Your task to perform on an android device: Empty the shopping cart on bestbuy. Add usb-a to usb-b to the cart on bestbuy, then select checkout. Image 0: 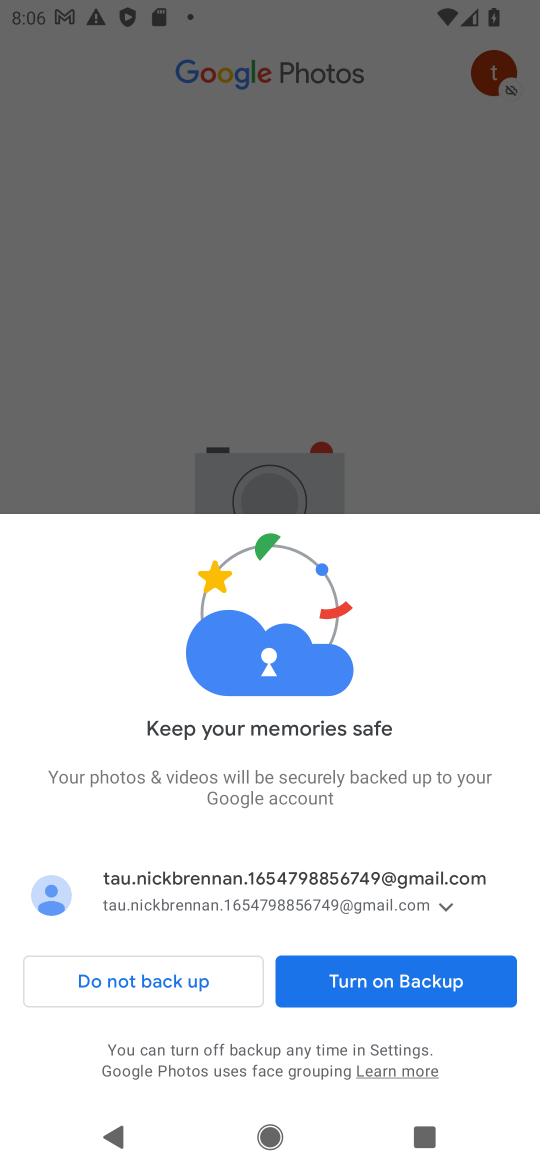
Step 0: press home button
Your task to perform on an android device: Empty the shopping cart on bestbuy. Add usb-a to usb-b to the cart on bestbuy, then select checkout. Image 1: 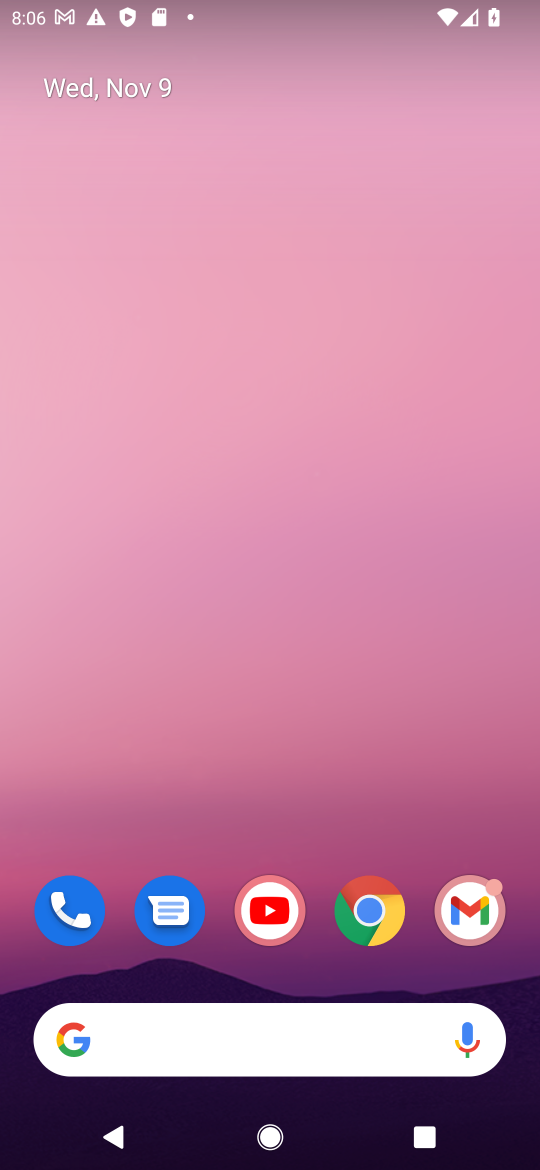
Step 1: click (374, 908)
Your task to perform on an android device: Empty the shopping cart on bestbuy. Add usb-a to usb-b to the cart on bestbuy, then select checkout. Image 2: 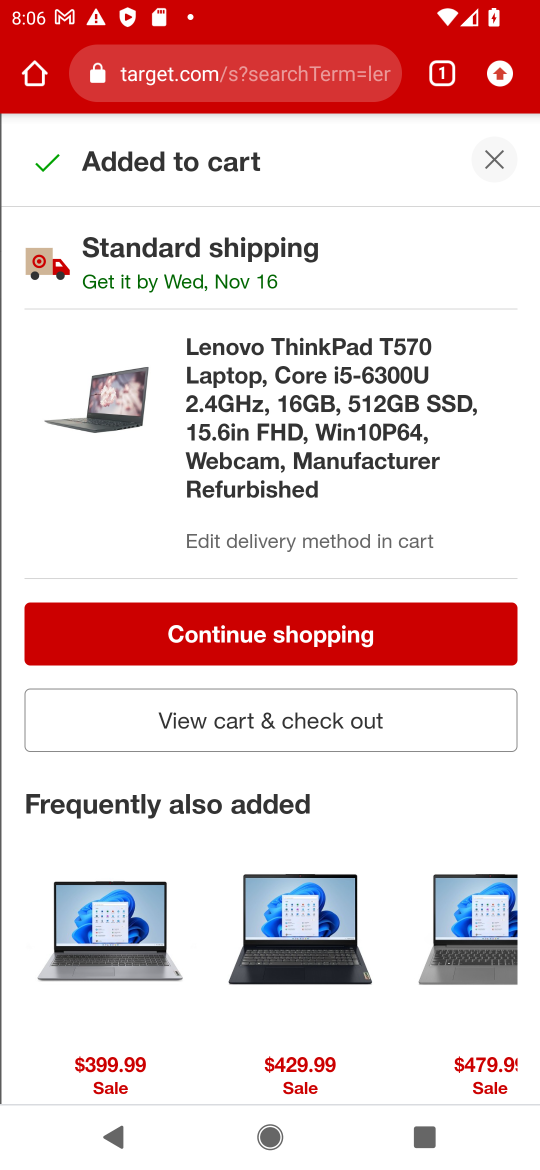
Step 2: click (296, 79)
Your task to perform on an android device: Empty the shopping cart on bestbuy. Add usb-a to usb-b to the cart on bestbuy, then select checkout. Image 3: 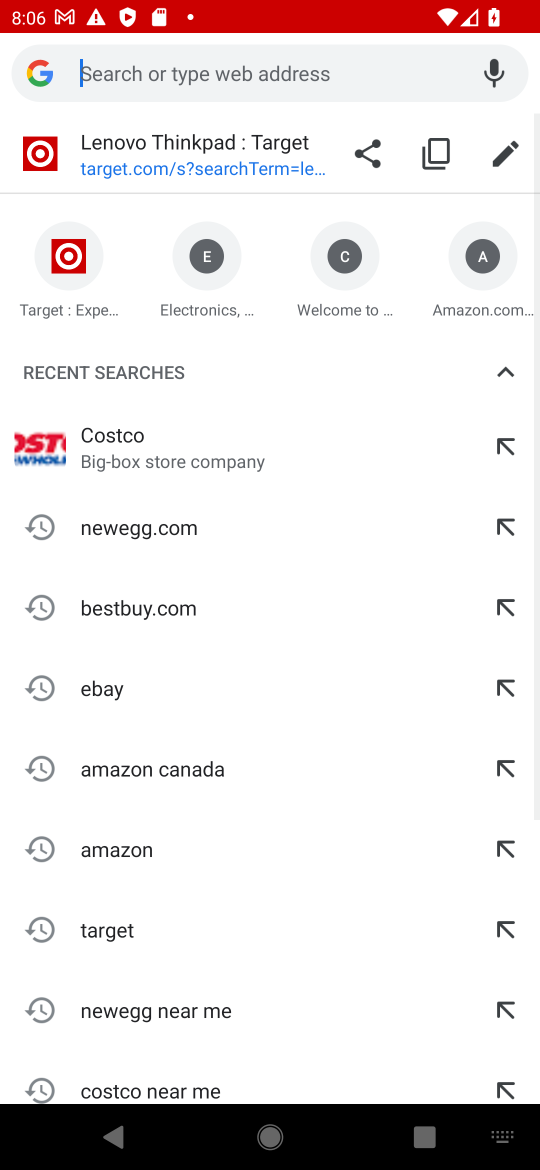
Step 3: click (129, 612)
Your task to perform on an android device: Empty the shopping cart on bestbuy. Add usb-a to usb-b to the cart on bestbuy, then select checkout. Image 4: 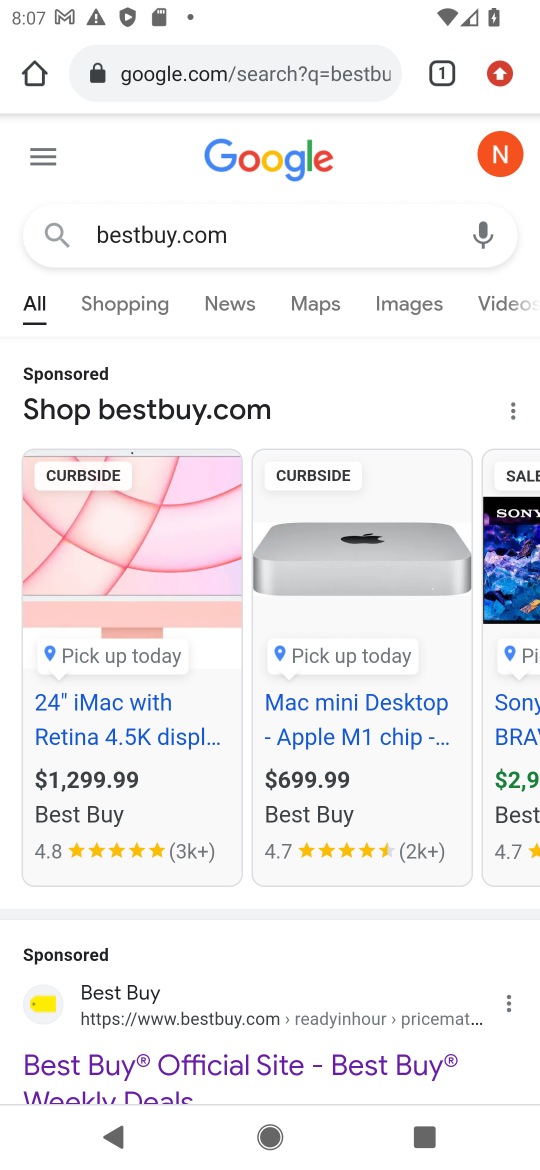
Step 4: drag from (174, 725) to (208, 450)
Your task to perform on an android device: Empty the shopping cart on bestbuy. Add usb-a to usb-b to the cart on bestbuy, then select checkout. Image 5: 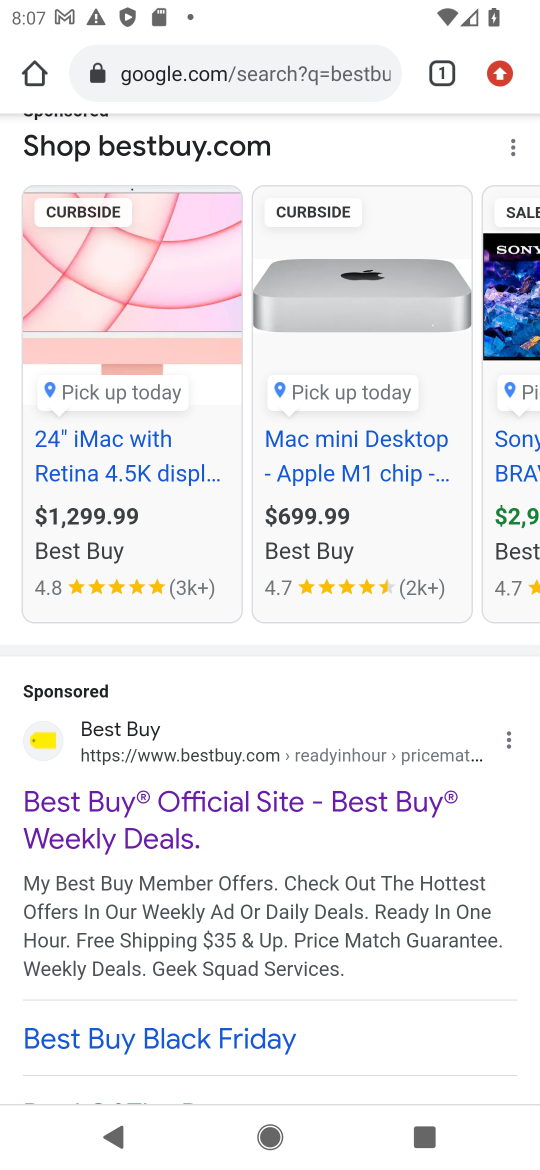
Step 5: drag from (200, 817) to (276, 330)
Your task to perform on an android device: Empty the shopping cart on bestbuy. Add usb-a to usb-b to the cart on bestbuy, then select checkout. Image 6: 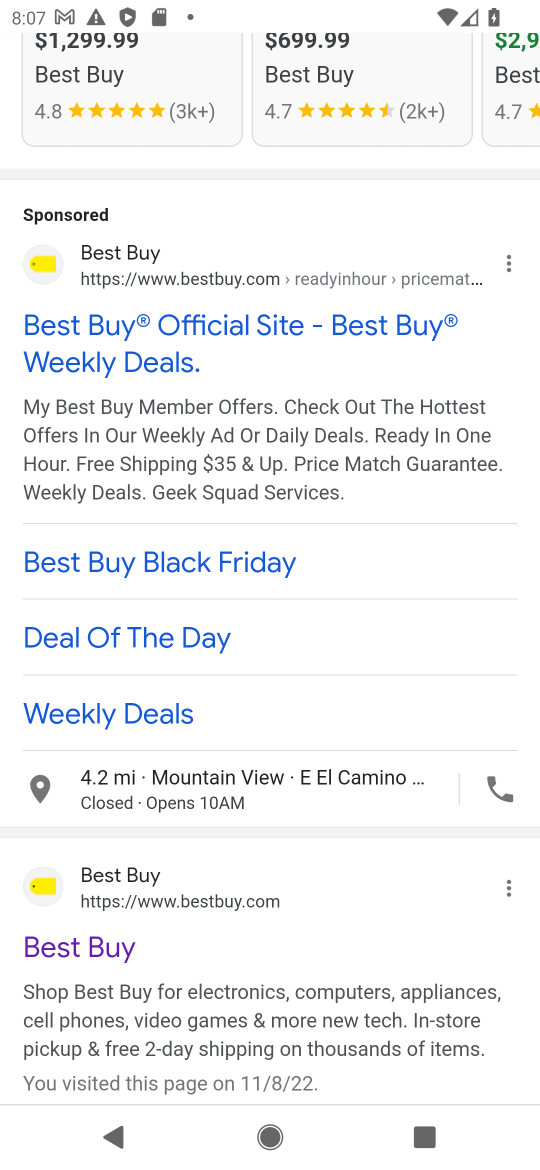
Step 6: click (104, 939)
Your task to perform on an android device: Empty the shopping cart on bestbuy. Add usb-a to usb-b to the cart on bestbuy, then select checkout. Image 7: 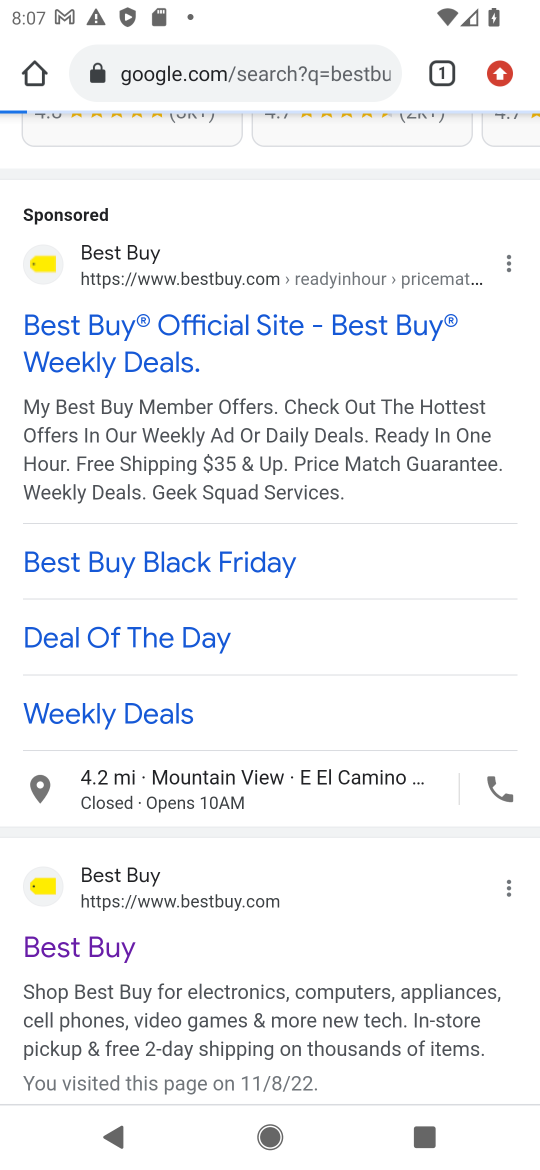
Step 7: click (108, 911)
Your task to perform on an android device: Empty the shopping cart on bestbuy. Add usb-a to usb-b to the cart on bestbuy, then select checkout. Image 8: 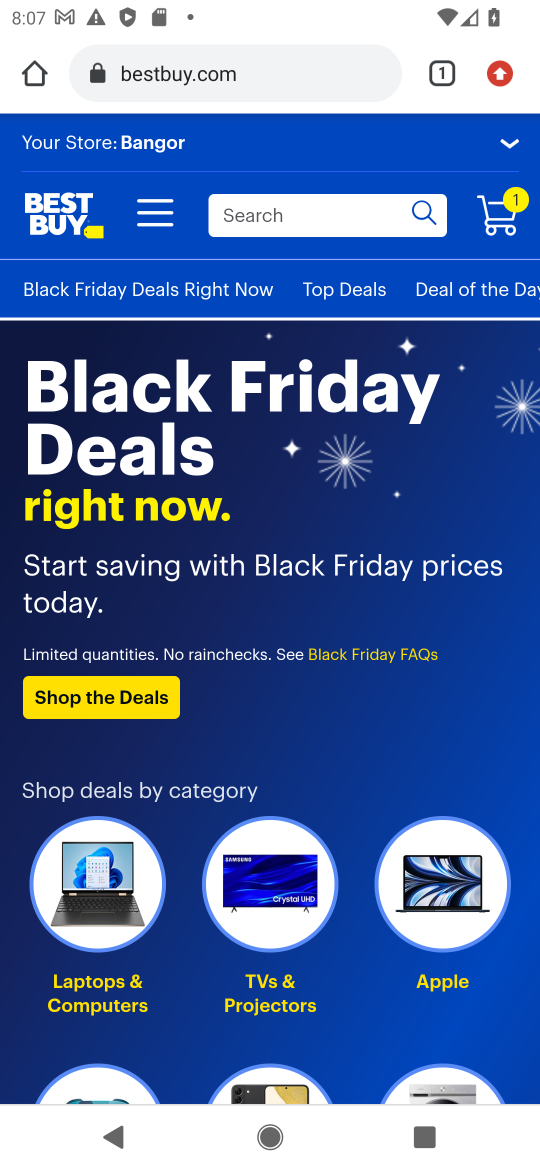
Step 8: click (501, 229)
Your task to perform on an android device: Empty the shopping cart on bestbuy. Add usb-a to usb-b to the cart on bestbuy, then select checkout. Image 9: 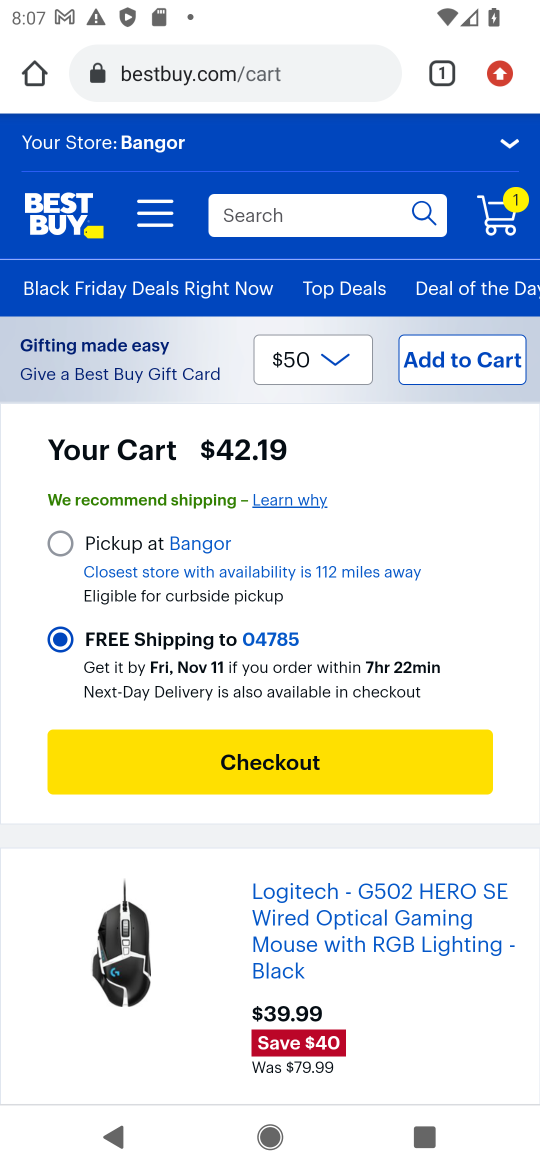
Step 9: drag from (318, 642) to (315, 279)
Your task to perform on an android device: Empty the shopping cart on bestbuy. Add usb-a to usb-b to the cart on bestbuy, then select checkout. Image 10: 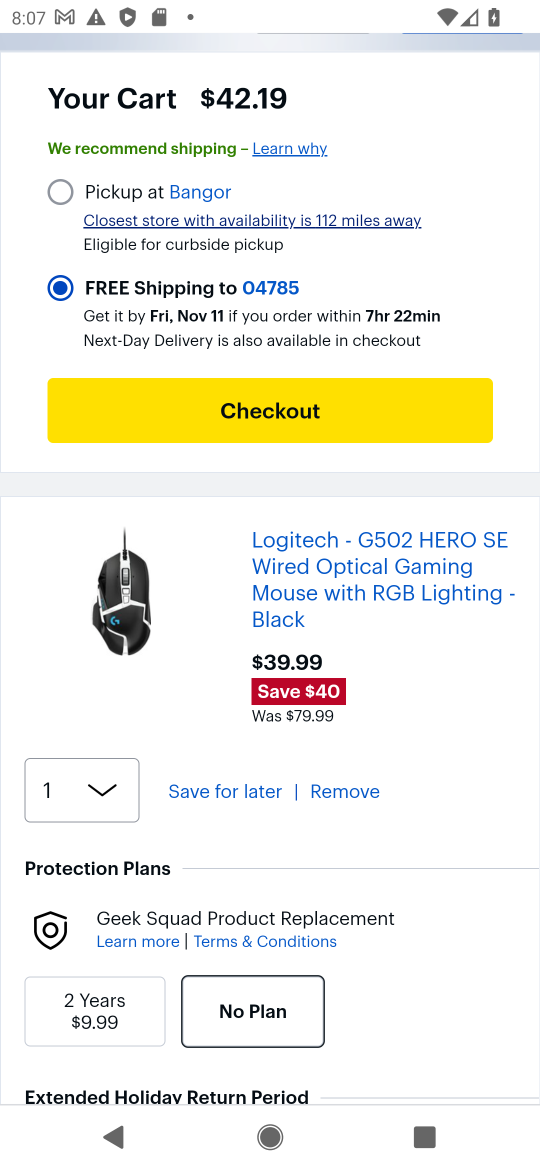
Step 10: click (330, 798)
Your task to perform on an android device: Empty the shopping cart on bestbuy. Add usb-a to usb-b to the cart on bestbuy, then select checkout. Image 11: 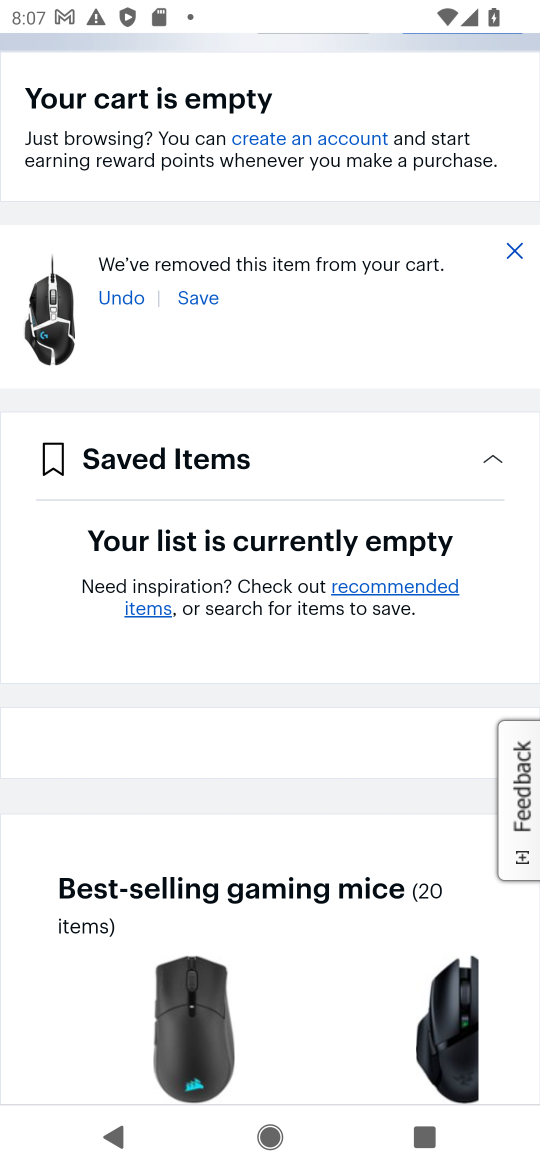
Step 11: drag from (304, 303) to (324, 858)
Your task to perform on an android device: Empty the shopping cart on bestbuy. Add usb-a to usb-b to the cart on bestbuy, then select checkout. Image 12: 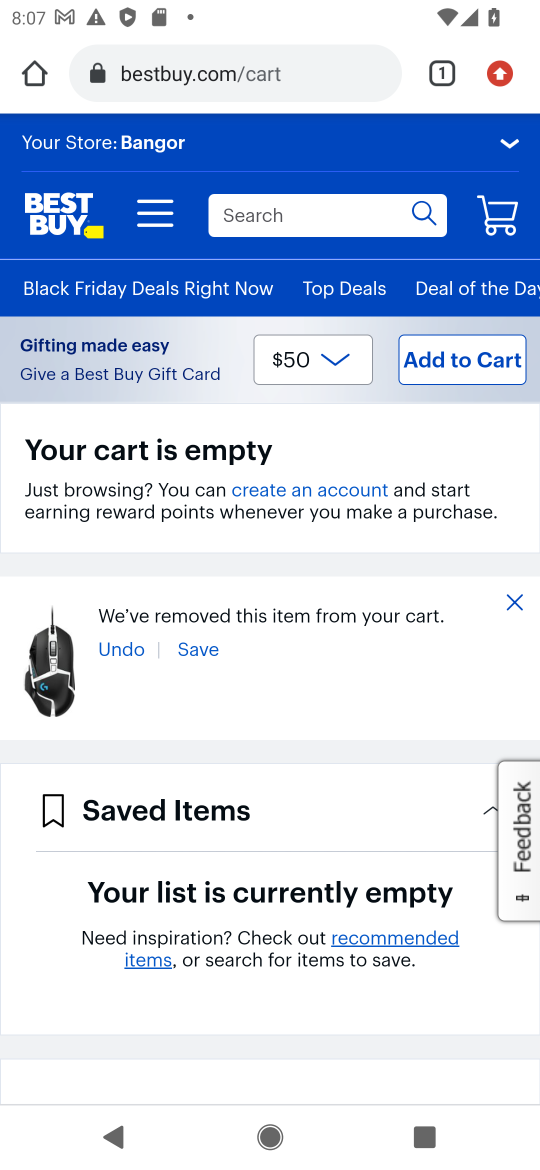
Step 12: click (288, 213)
Your task to perform on an android device: Empty the shopping cart on bestbuy. Add usb-a to usb-b to the cart on bestbuy, then select checkout. Image 13: 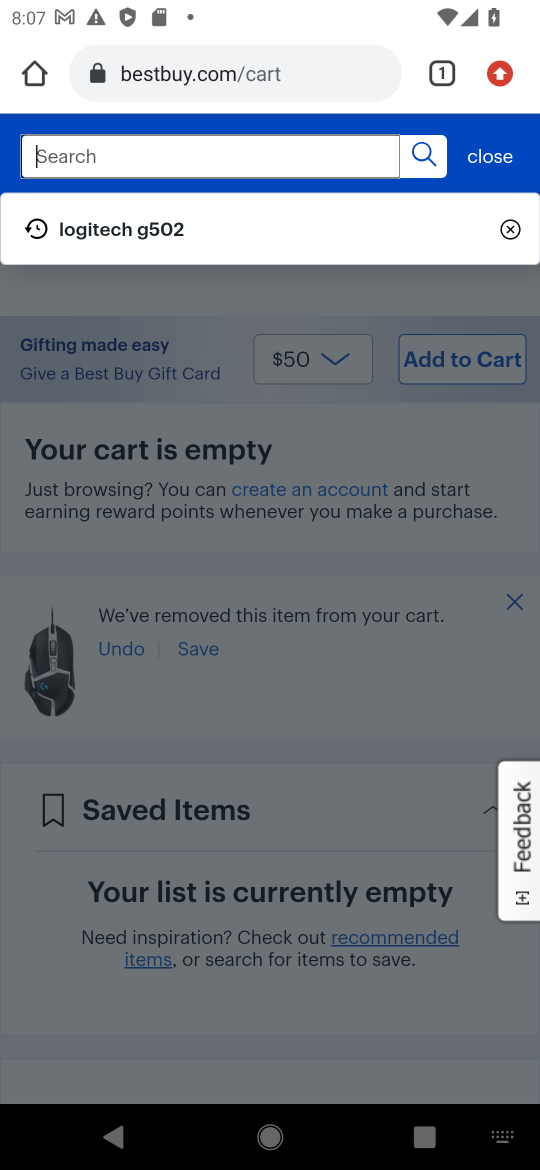
Step 13: type "usb-a to usb-b"
Your task to perform on an android device: Empty the shopping cart on bestbuy. Add usb-a to usb-b to the cart on bestbuy, then select checkout. Image 14: 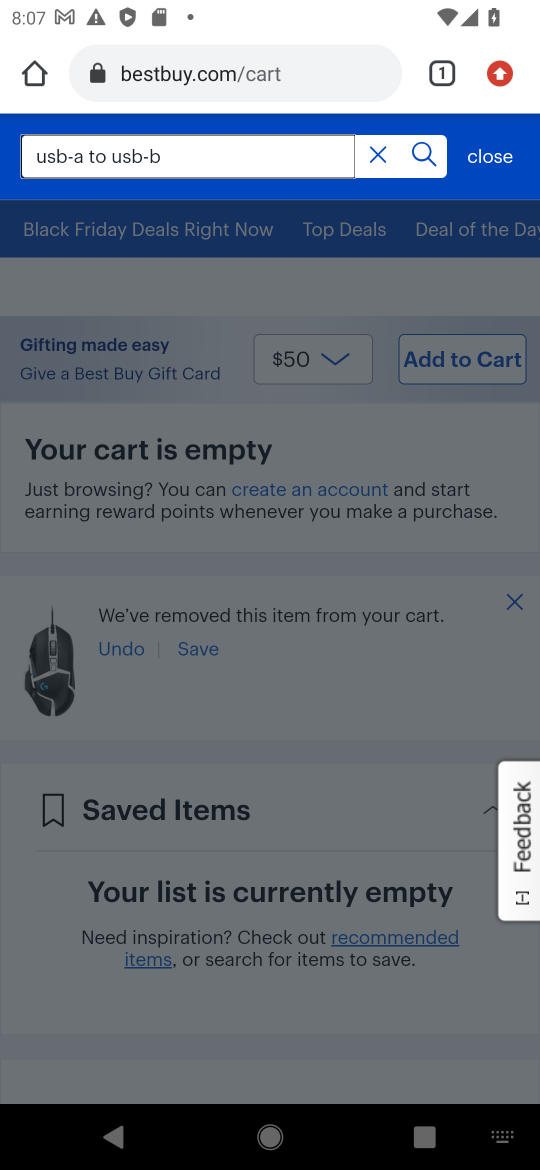
Step 14: click (434, 155)
Your task to perform on an android device: Empty the shopping cart on bestbuy. Add usb-a to usb-b to the cart on bestbuy, then select checkout. Image 15: 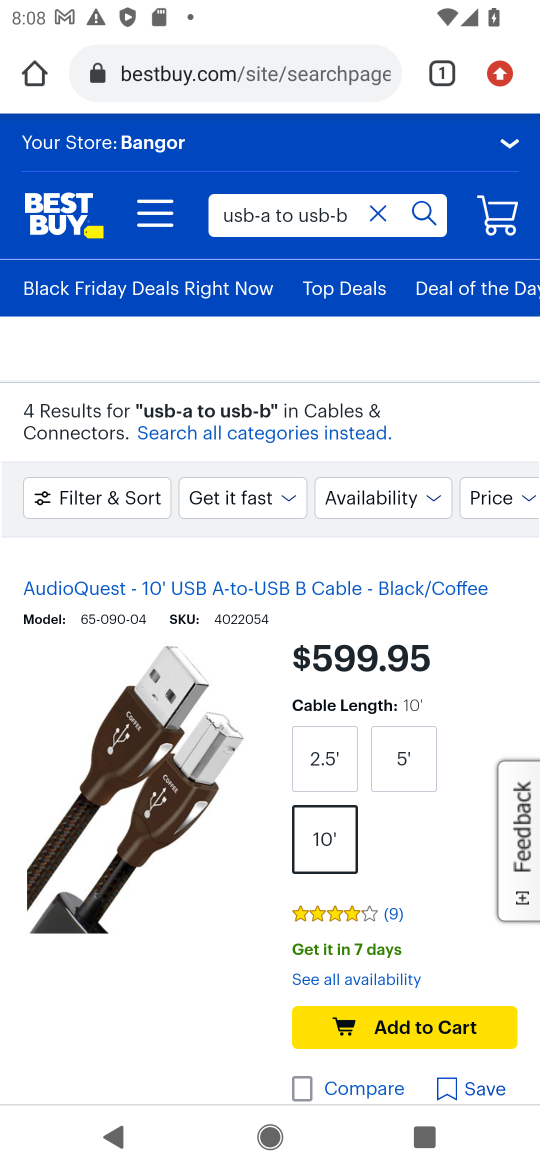
Step 15: click (384, 1023)
Your task to perform on an android device: Empty the shopping cart on bestbuy. Add usb-a to usb-b to the cart on bestbuy, then select checkout. Image 16: 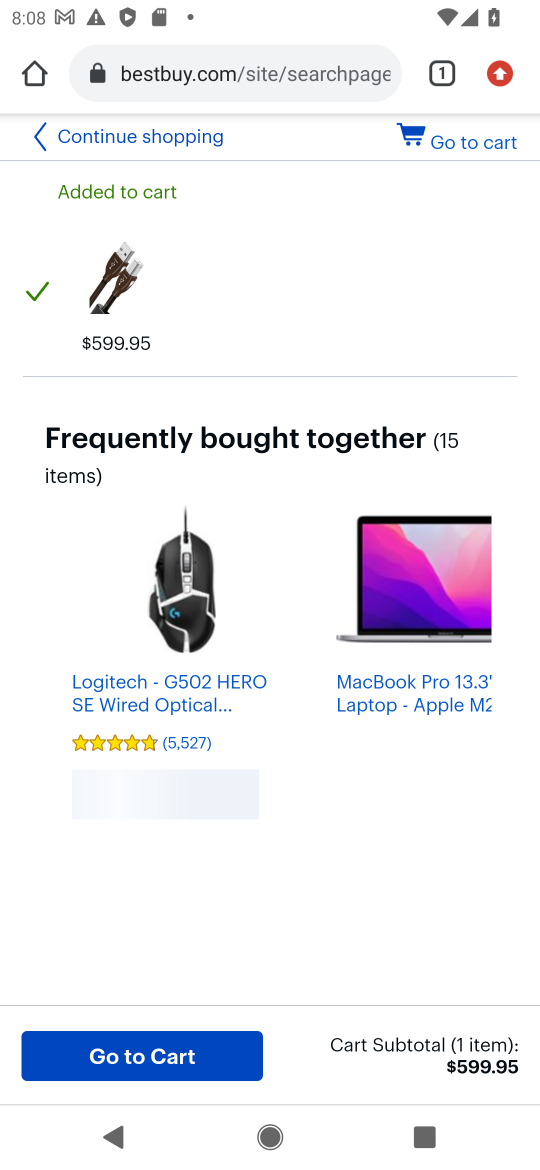
Step 16: click (503, 138)
Your task to perform on an android device: Empty the shopping cart on bestbuy. Add usb-a to usb-b to the cart on bestbuy, then select checkout. Image 17: 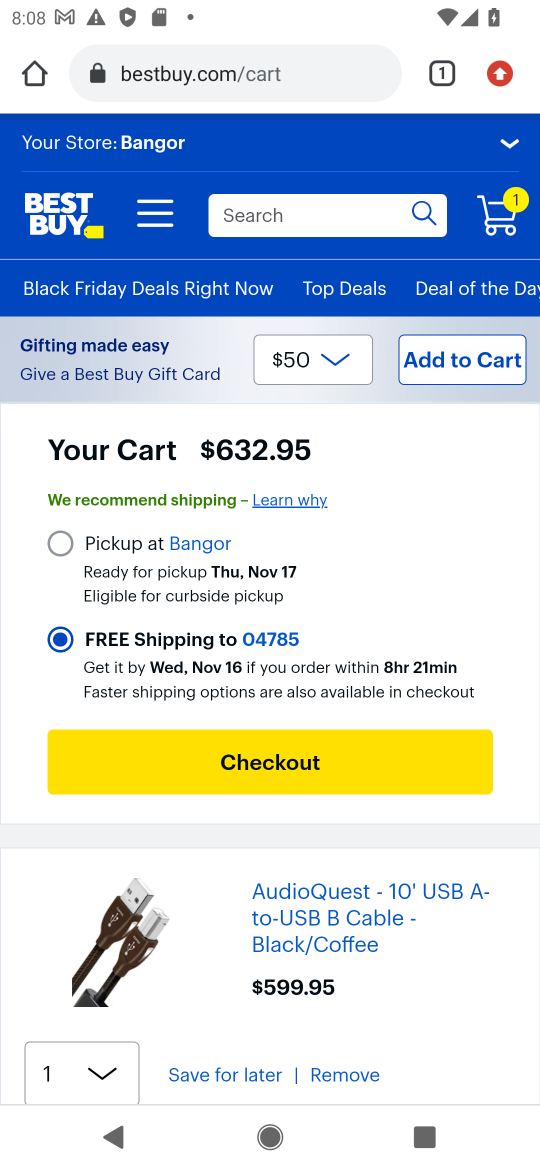
Step 17: click (251, 758)
Your task to perform on an android device: Empty the shopping cart on bestbuy. Add usb-a to usb-b to the cart on bestbuy, then select checkout. Image 18: 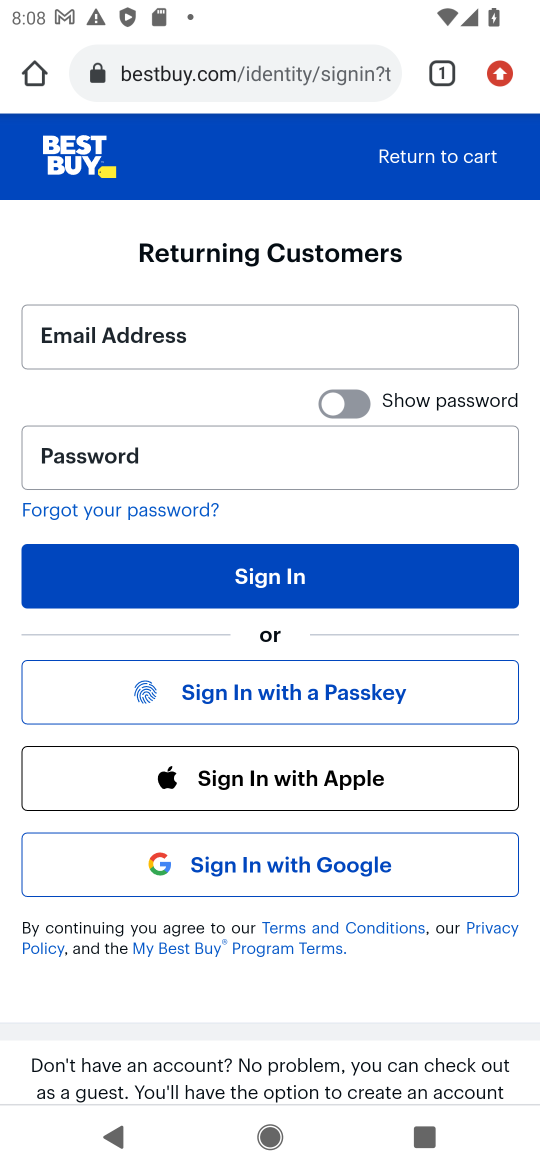
Step 18: task complete